Your task to perform on an android device: Open the calendar app, open the side menu, and click the "Day" option Image 0: 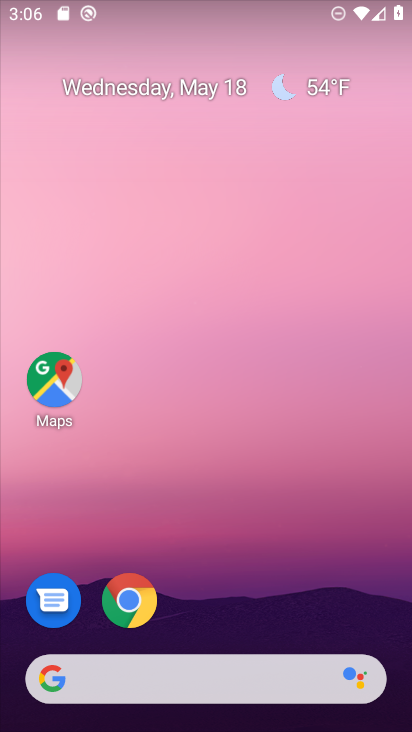
Step 0: drag from (222, 601) to (298, 135)
Your task to perform on an android device: Open the calendar app, open the side menu, and click the "Day" option Image 1: 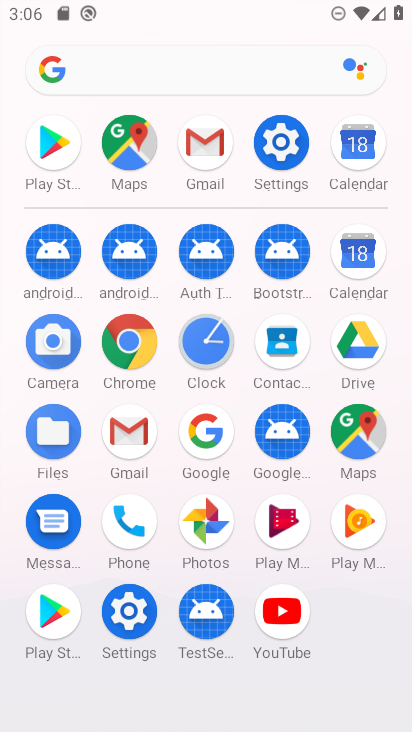
Step 1: click (369, 265)
Your task to perform on an android device: Open the calendar app, open the side menu, and click the "Day" option Image 2: 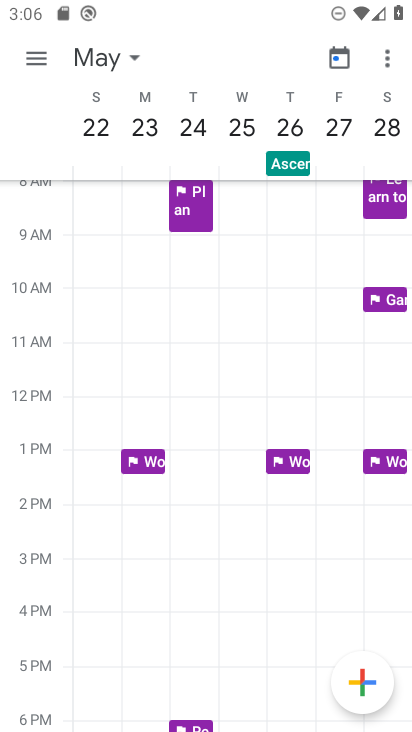
Step 2: drag from (104, 113) to (412, 149)
Your task to perform on an android device: Open the calendar app, open the side menu, and click the "Day" option Image 3: 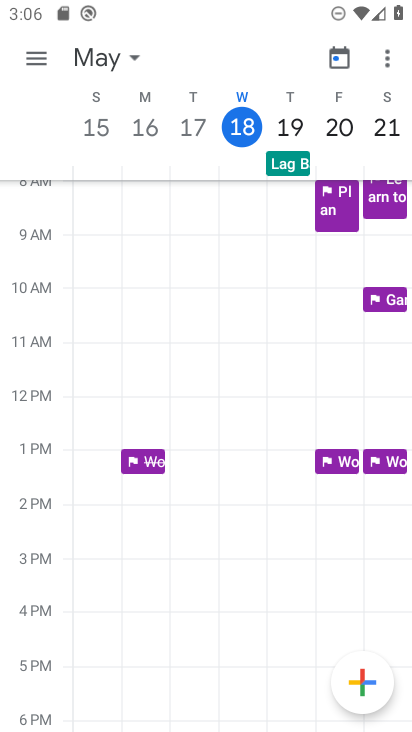
Step 3: click (35, 52)
Your task to perform on an android device: Open the calendar app, open the side menu, and click the "Day" option Image 4: 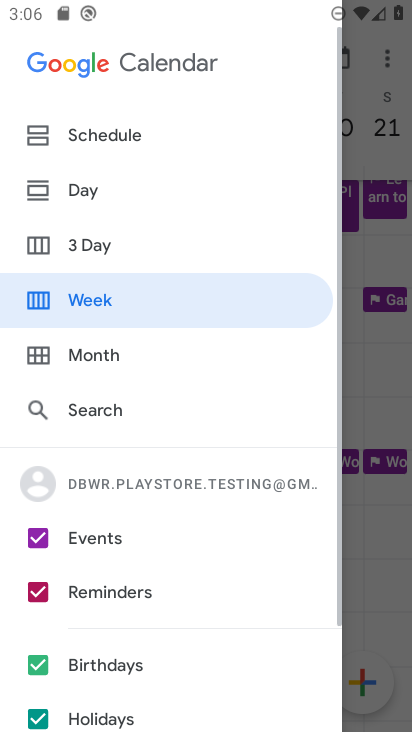
Step 4: click (72, 184)
Your task to perform on an android device: Open the calendar app, open the side menu, and click the "Day" option Image 5: 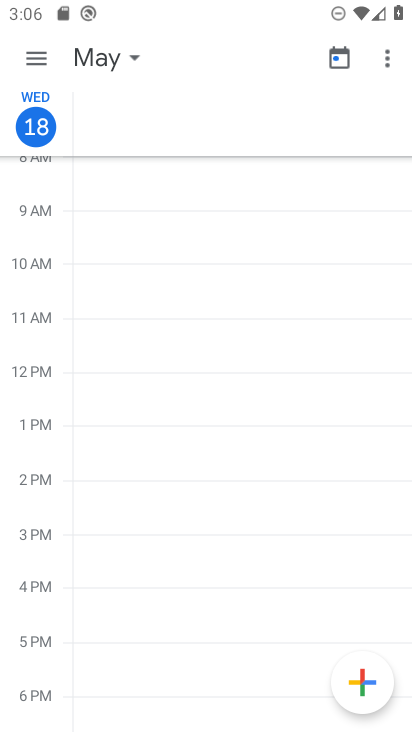
Step 5: task complete